Your task to perform on an android device: toggle javascript in the chrome app Image 0: 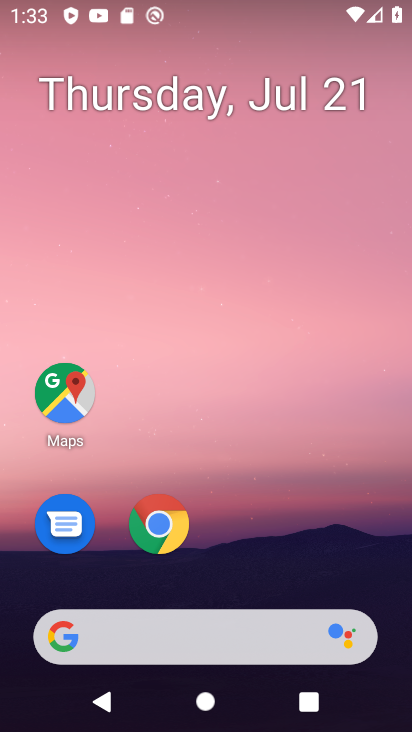
Step 0: click (152, 525)
Your task to perform on an android device: toggle javascript in the chrome app Image 1: 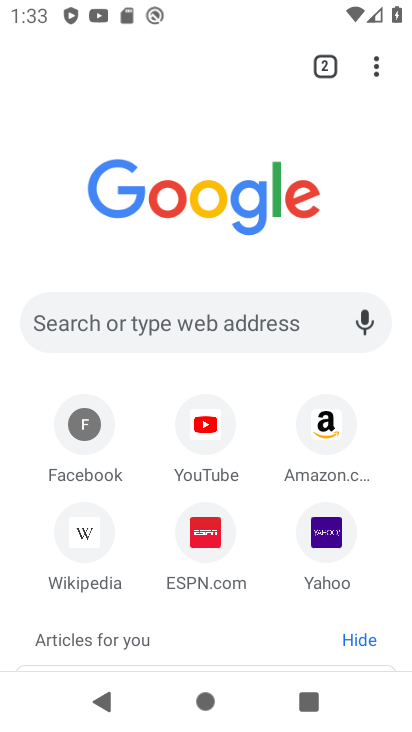
Step 1: click (376, 67)
Your task to perform on an android device: toggle javascript in the chrome app Image 2: 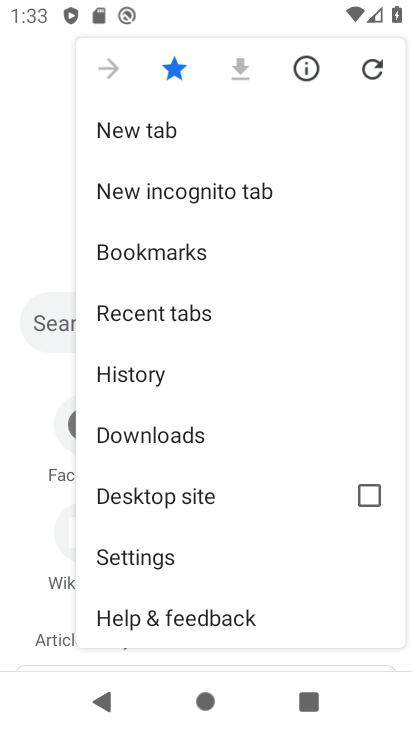
Step 2: click (168, 558)
Your task to perform on an android device: toggle javascript in the chrome app Image 3: 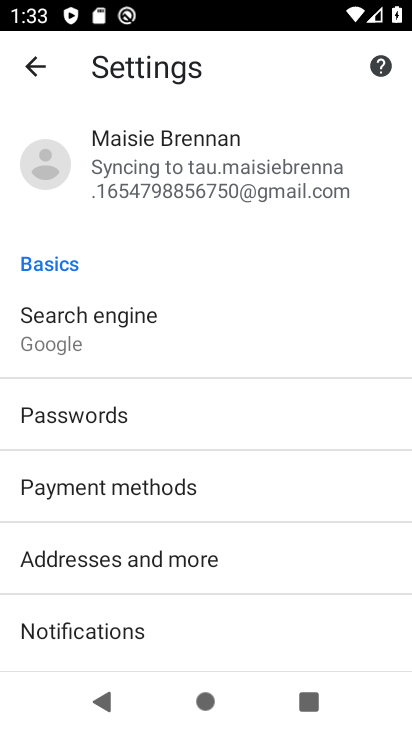
Step 3: drag from (222, 609) to (241, 176)
Your task to perform on an android device: toggle javascript in the chrome app Image 4: 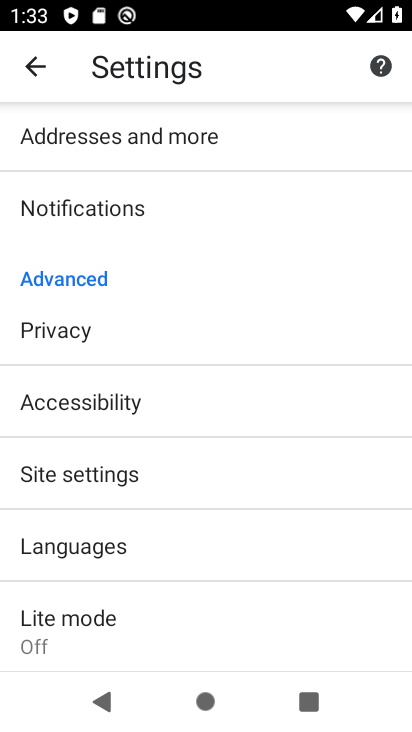
Step 4: click (135, 472)
Your task to perform on an android device: toggle javascript in the chrome app Image 5: 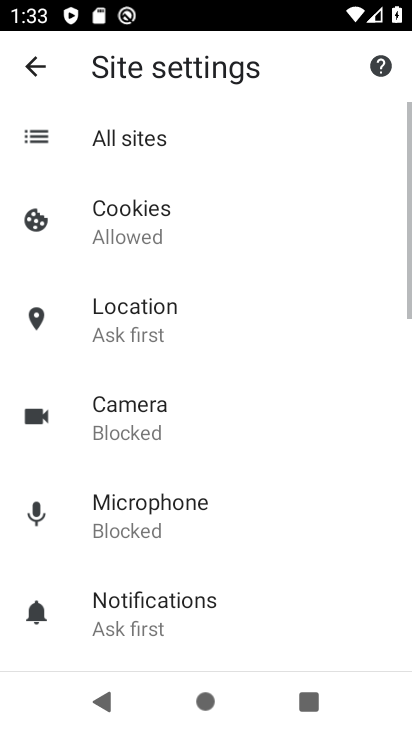
Step 5: drag from (230, 558) to (224, 175)
Your task to perform on an android device: toggle javascript in the chrome app Image 6: 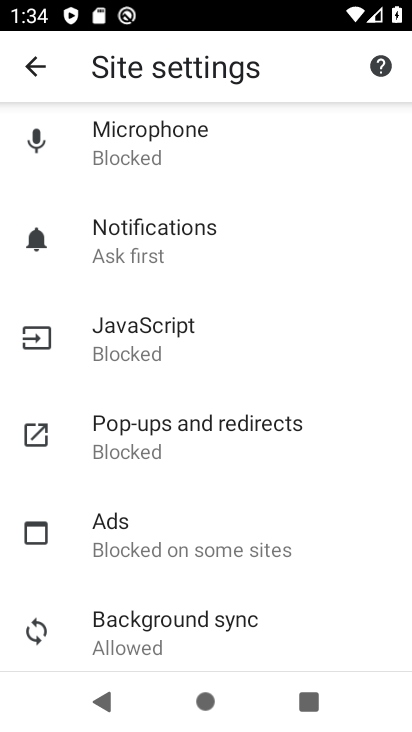
Step 6: click (188, 350)
Your task to perform on an android device: toggle javascript in the chrome app Image 7: 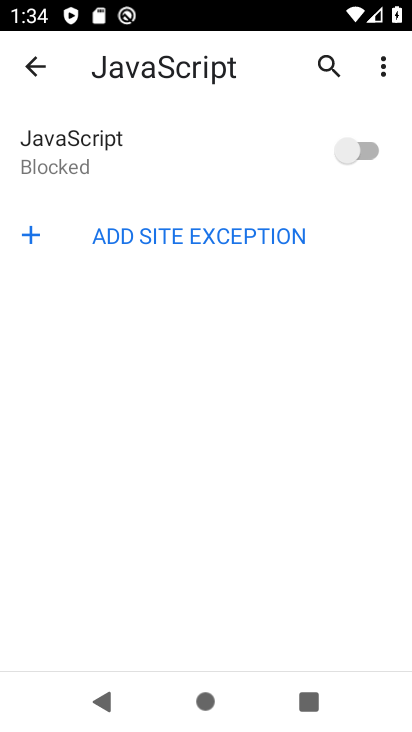
Step 7: click (349, 146)
Your task to perform on an android device: toggle javascript in the chrome app Image 8: 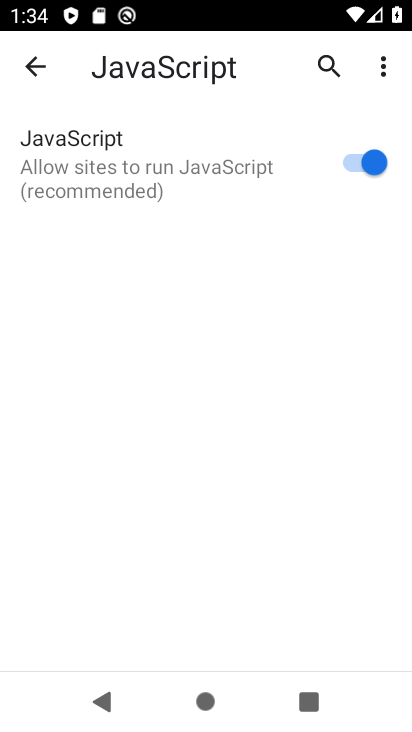
Step 8: task complete